Your task to perform on an android device: open wifi settings Image 0: 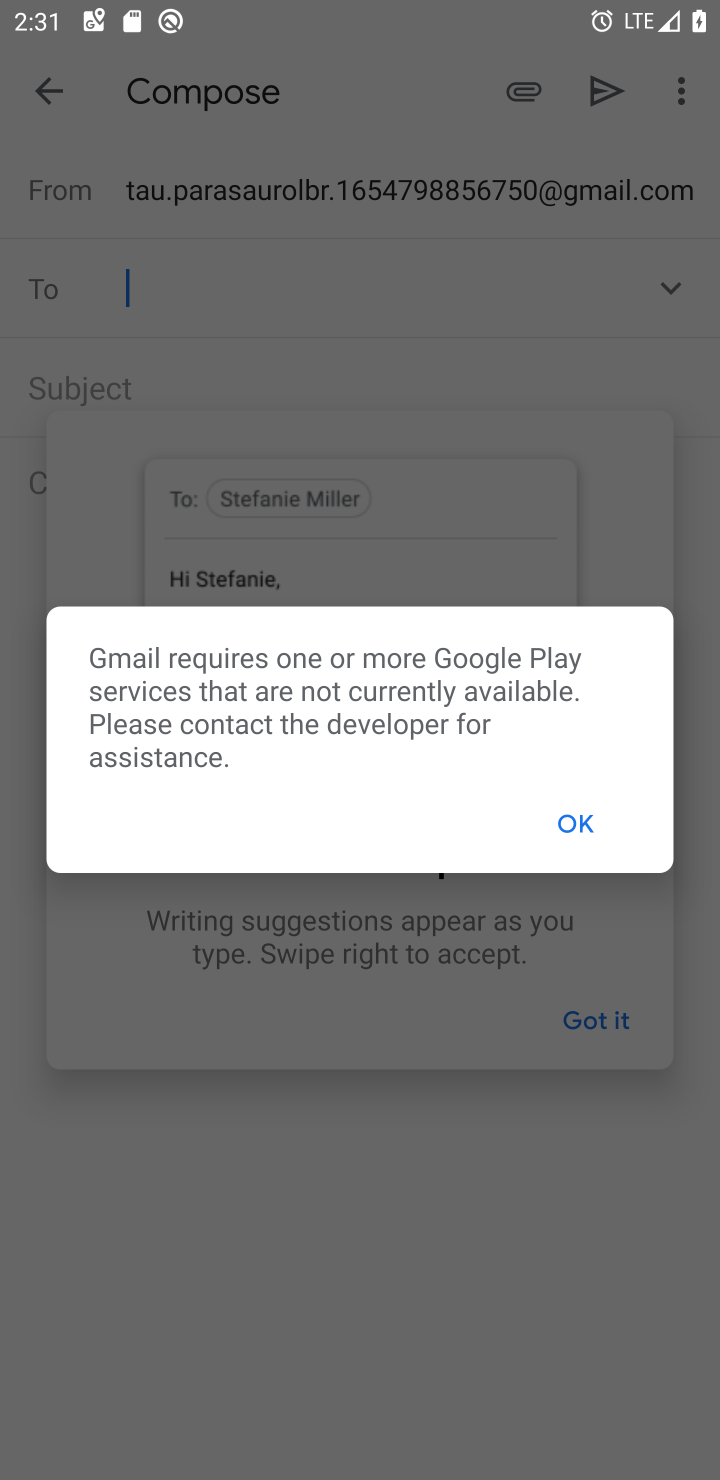
Step 0: press home button
Your task to perform on an android device: open wifi settings Image 1: 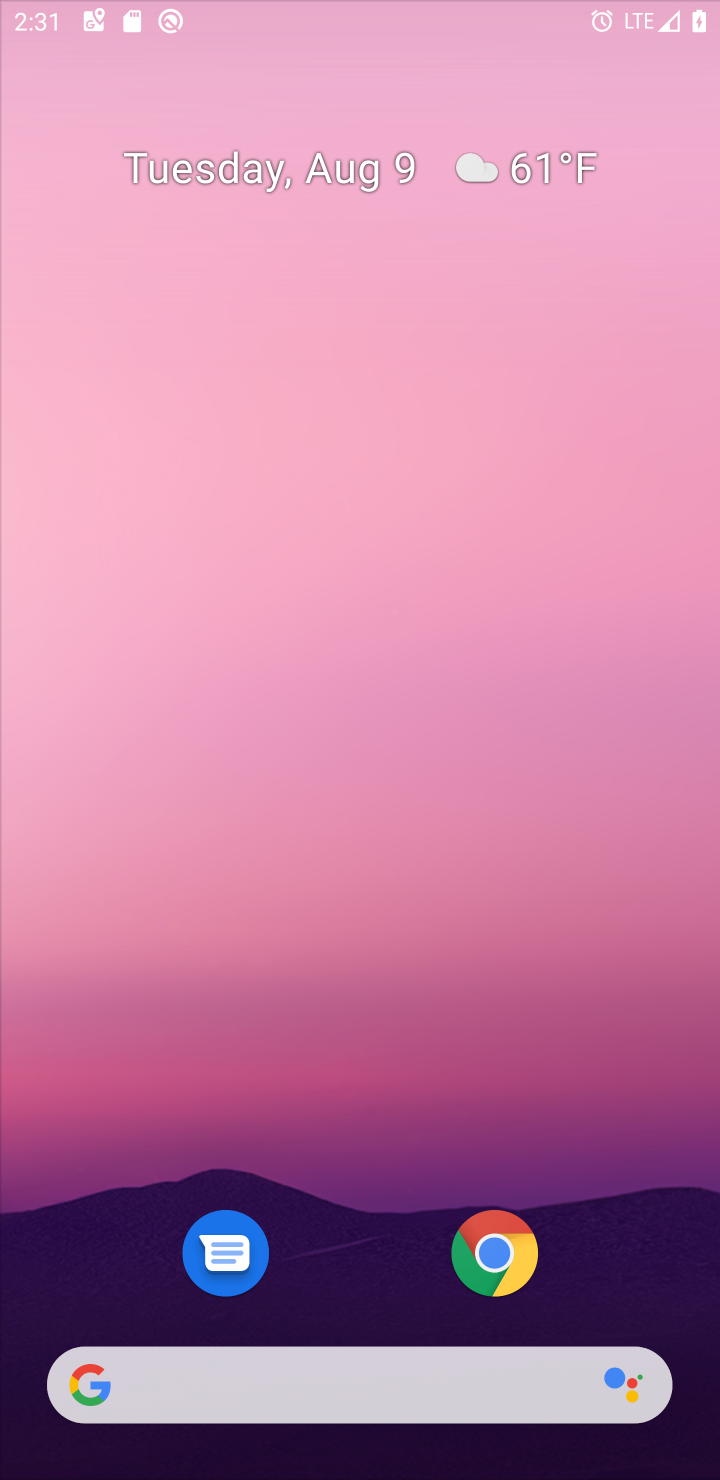
Step 1: drag from (579, 990) to (334, 15)
Your task to perform on an android device: open wifi settings Image 2: 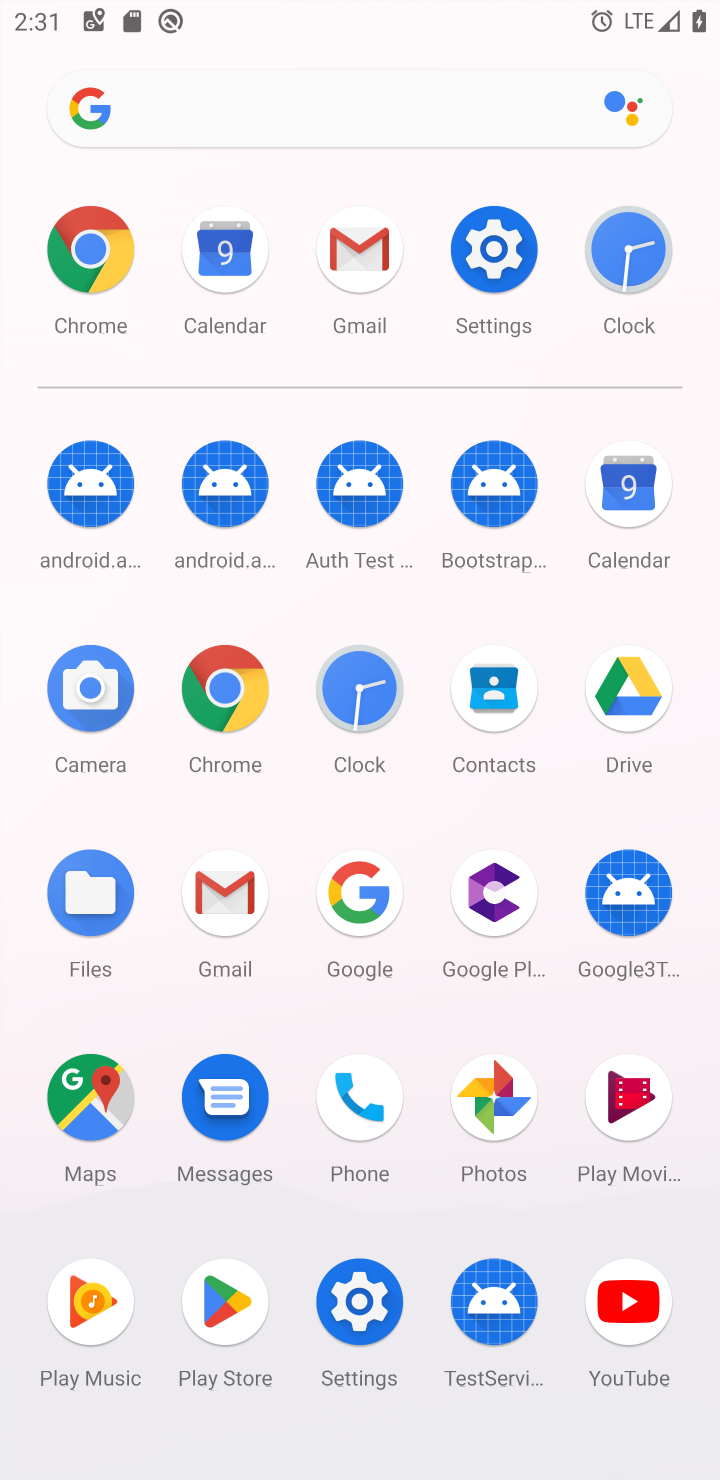
Step 2: click (498, 265)
Your task to perform on an android device: open wifi settings Image 3: 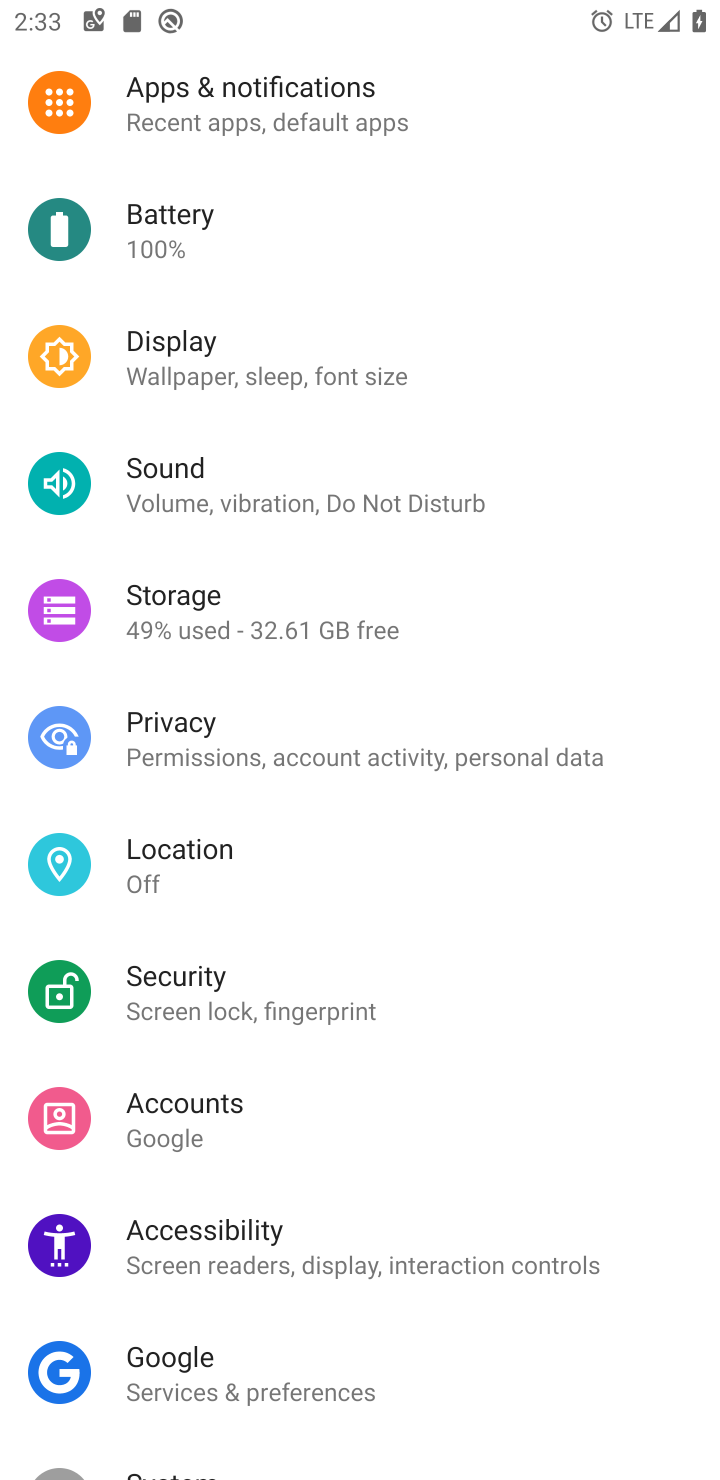
Step 3: drag from (297, 250) to (207, 1364)
Your task to perform on an android device: open wifi settings Image 4: 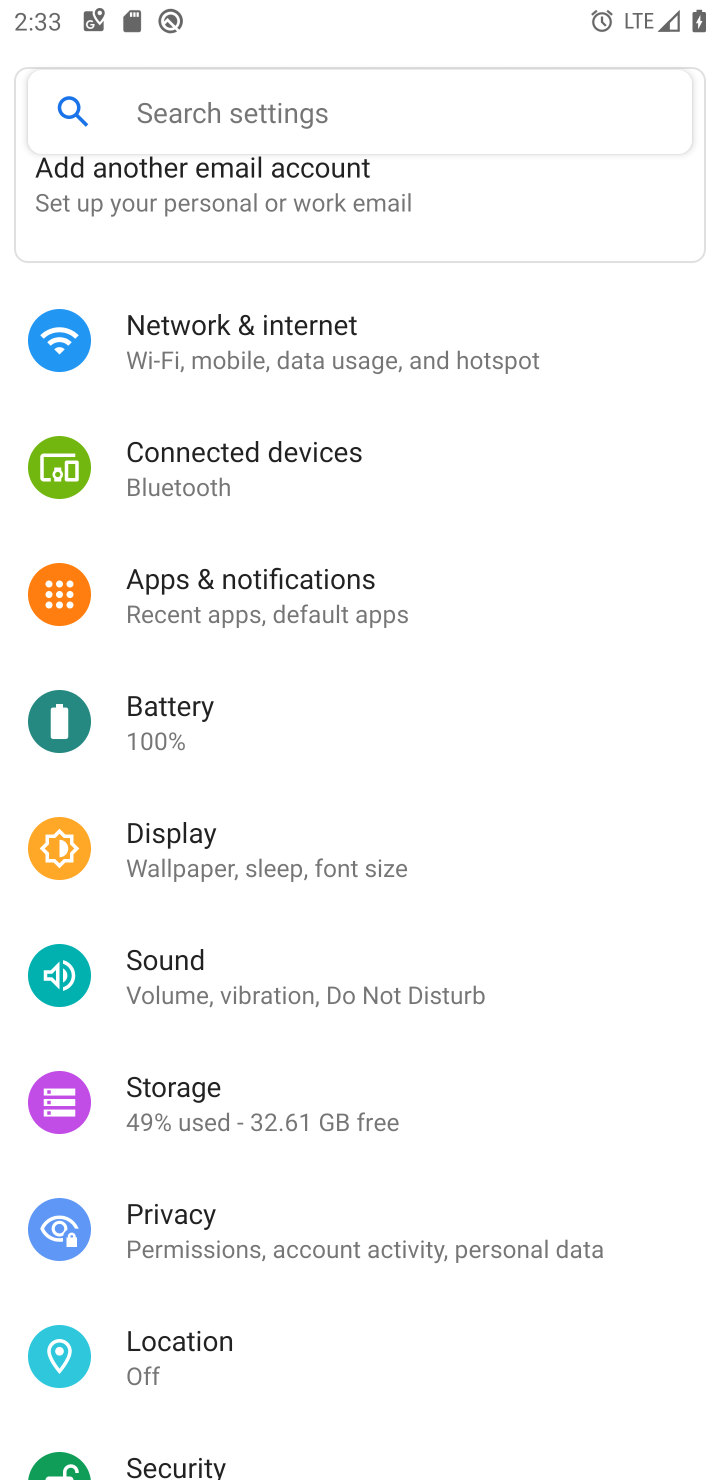
Step 4: click (230, 337)
Your task to perform on an android device: open wifi settings Image 5: 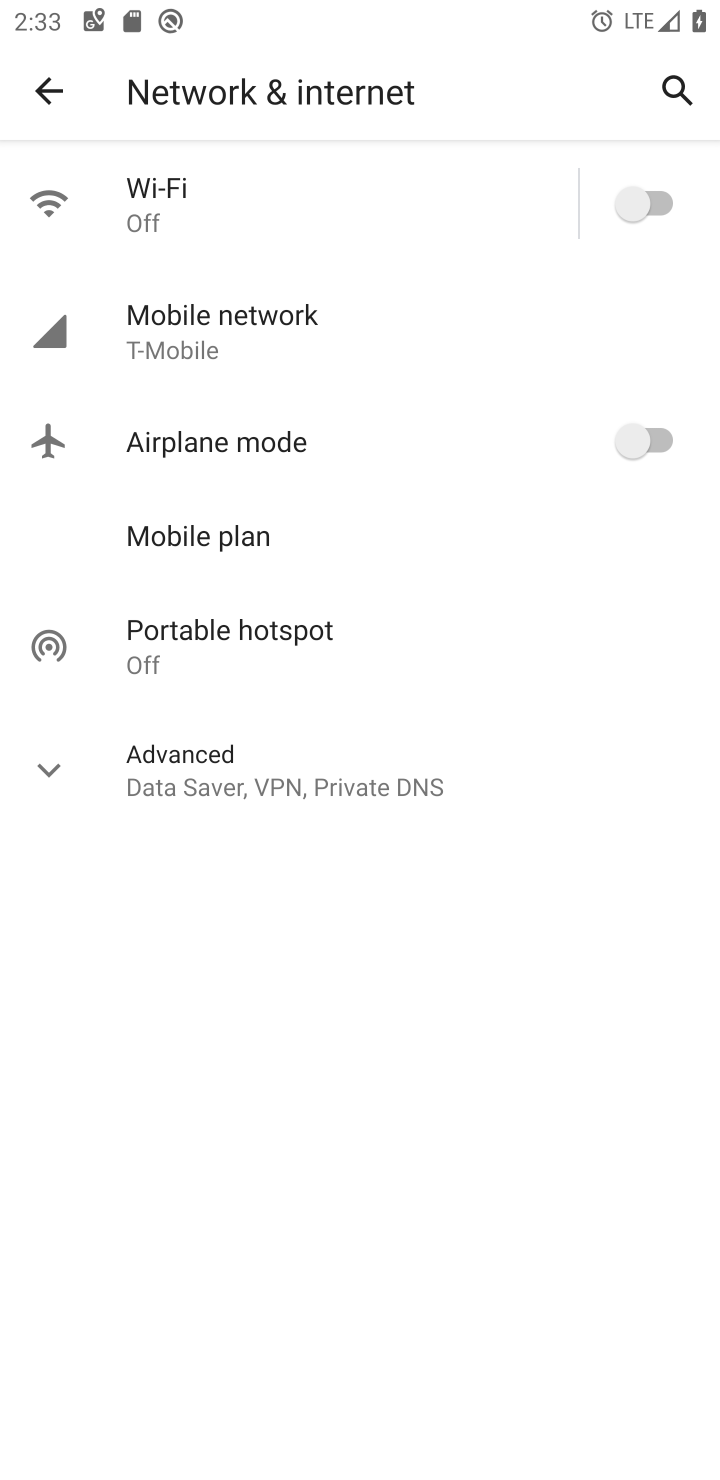
Step 5: click (267, 222)
Your task to perform on an android device: open wifi settings Image 6: 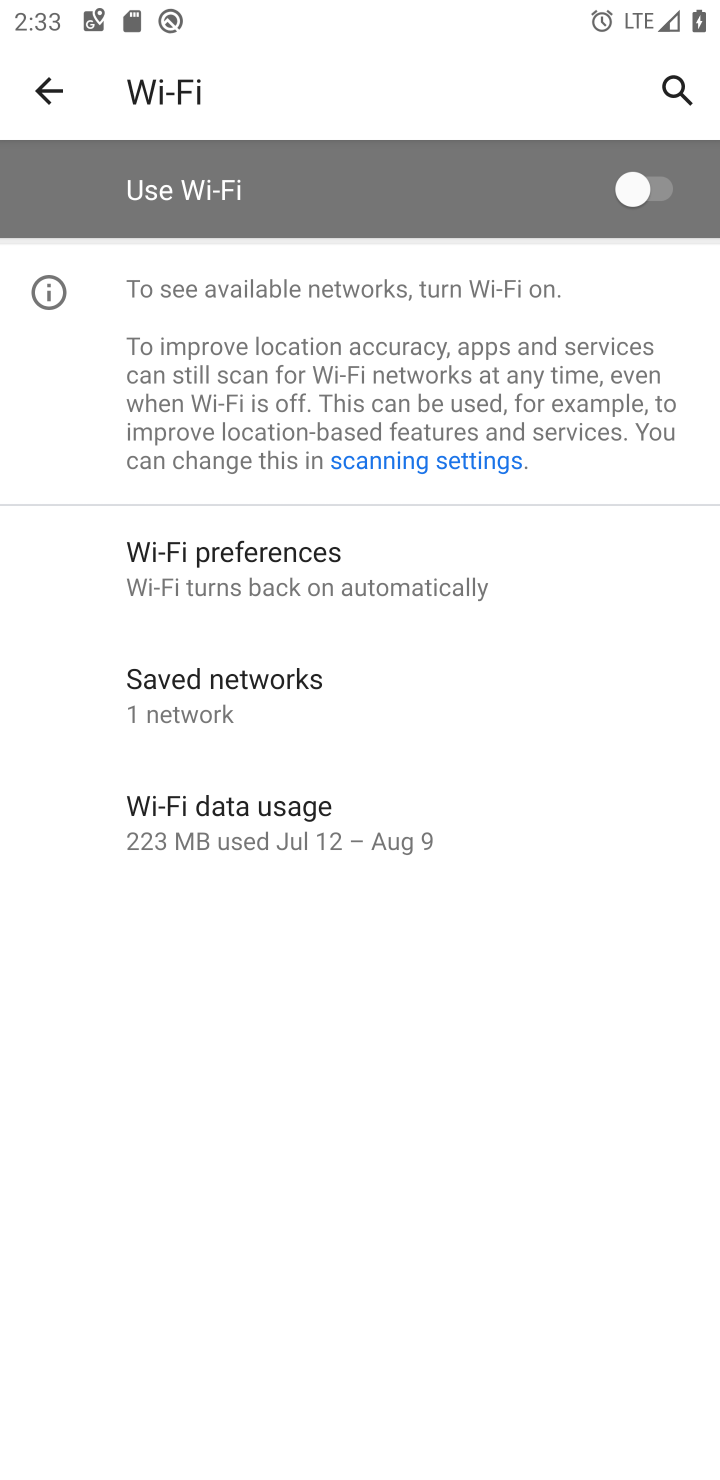
Step 6: task complete